Your task to perform on an android device: toggle javascript in the chrome app Image 0: 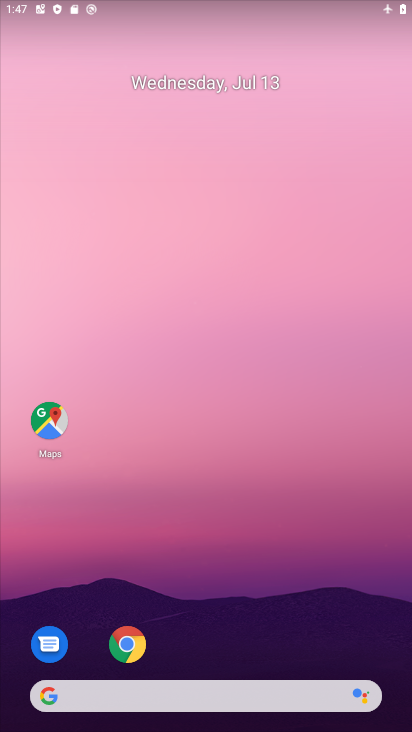
Step 0: drag from (353, 595) to (324, 78)
Your task to perform on an android device: toggle javascript in the chrome app Image 1: 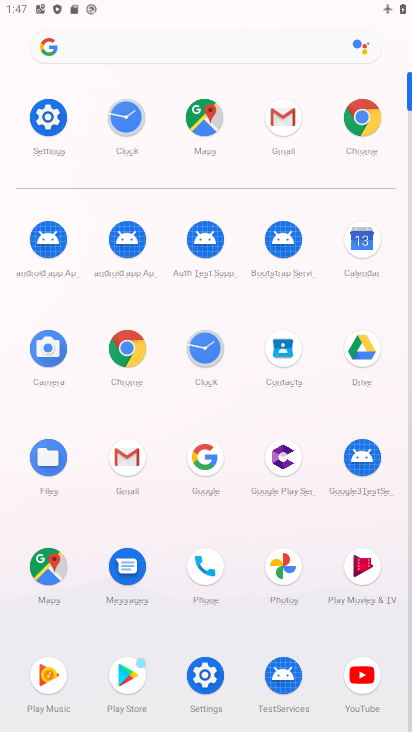
Step 1: click (125, 348)
Your task to perform on an android device: toggle javascript in the chrome app Image 2: 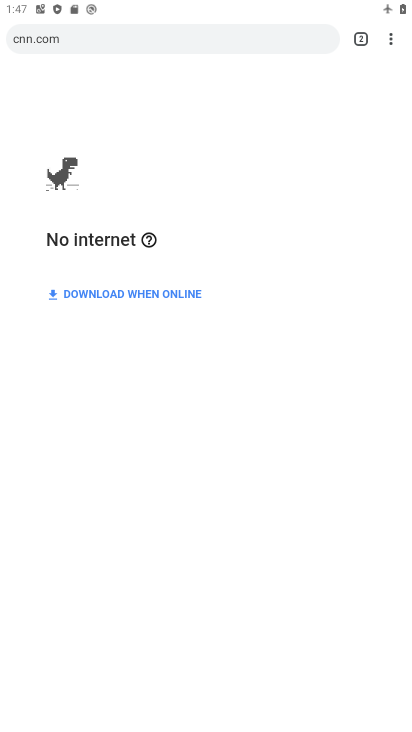
Step 2: click (391, 35)
Your task to perform on an android device: toggle javascript in the chrome app Image 3: 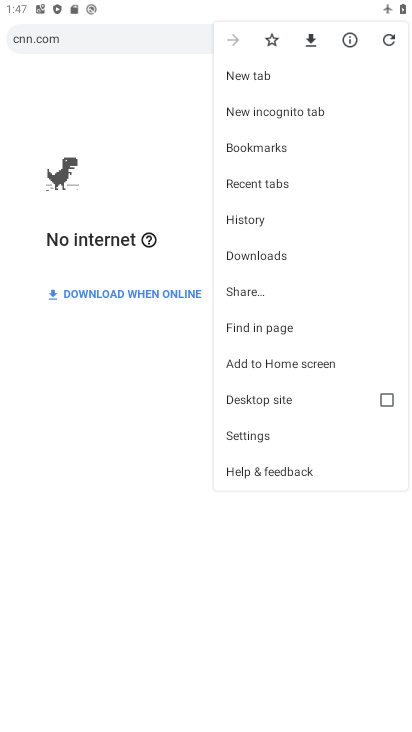
Step 3: click (256, 440)
Your task to perform on an android device: toggle javascript in the chrome app Image 4: 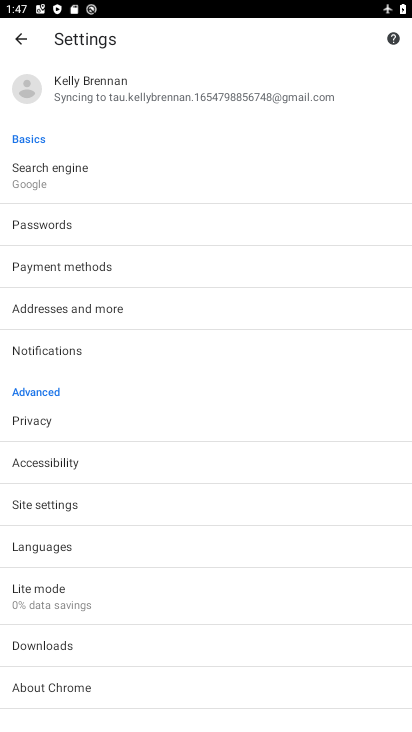
Step 4: click (51, 508)
Your task to perform on an android device: toggle javascript in the chrome app Image 5: 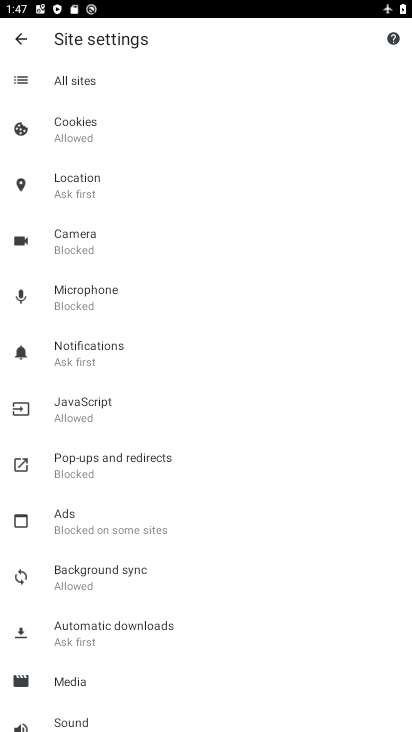
Step 5: click (76, 408)
Your task to perform on an android device: toggle javascript in the chrome app Image 6: 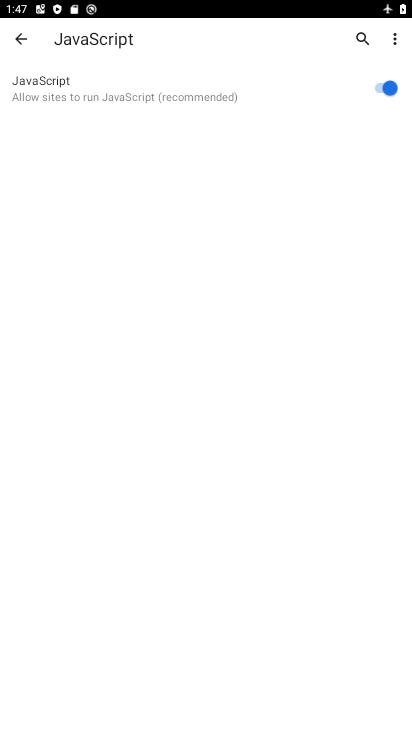
Step 6: click (396, 93)
Your task to perform on an android device: toggle javascript in the chrome app Image 7: 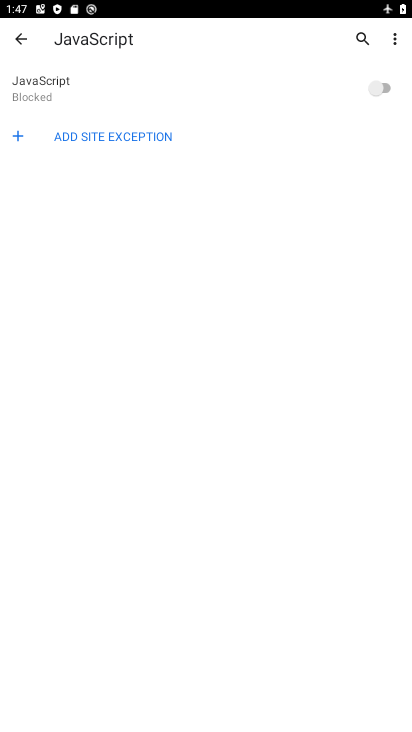
Step 7: task complete